Your task to perform on an android device: turn on showing notifications on the lock screen Image 0: 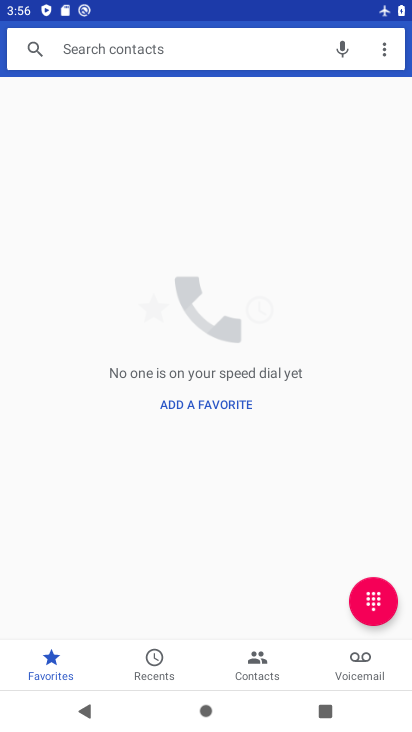
Step 0: press home button
Your task to perform on an android device: turn on showing notifications on the lock screen Image 1: 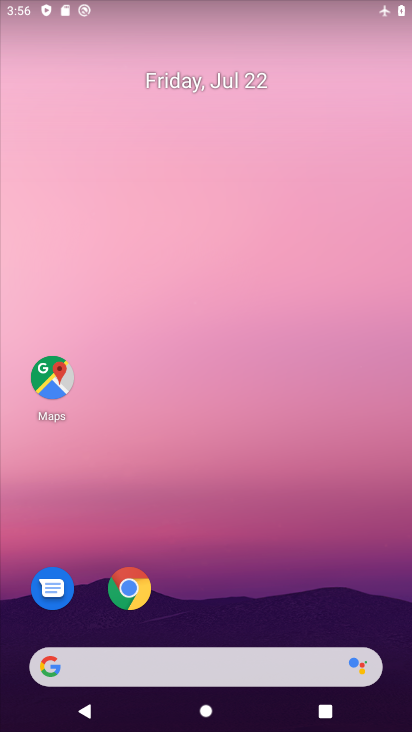
Step 1: drag from (333, 604) to (243, 160)
Your task to perform on an android device: turn on showing notifications on the lock screen Image 2: 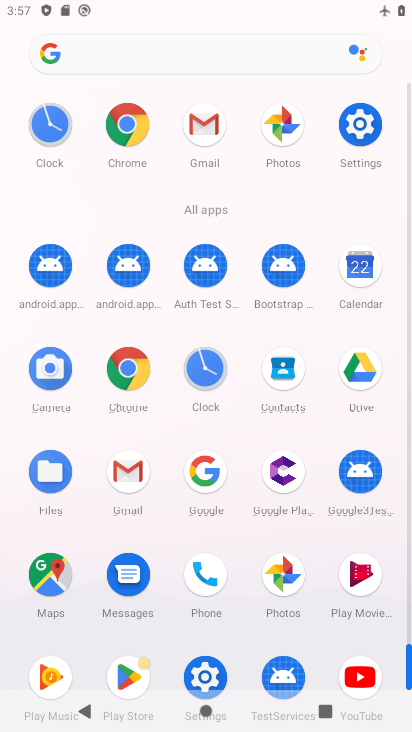
Step 2: click (353, 121)
Your task to perform on an android device: turn on showing notifications on the lock screen Image 3: 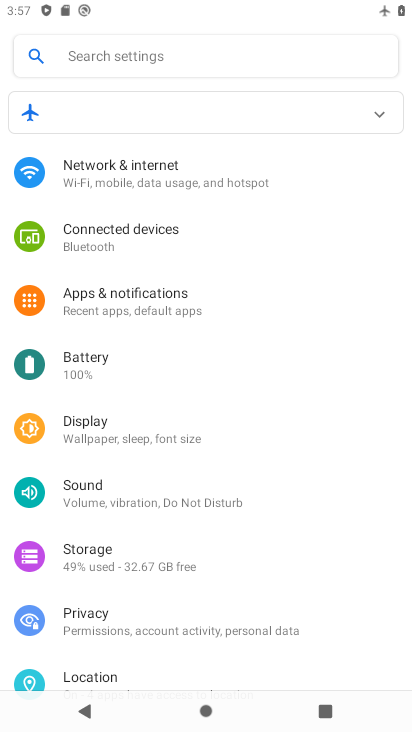
Step 3: click (220, 294)
Your task to perform on an android device: turn on showing notifications on the lock screen Image 4: 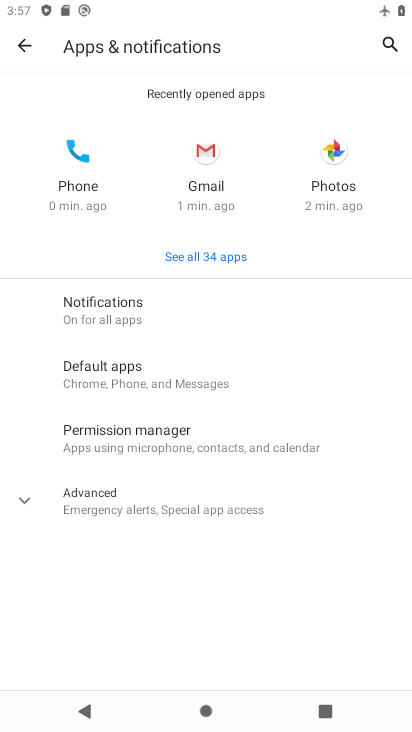
Step 4: click (199, 289)
Your task to perform on an android device: turn on showing notifications on the lock screen Image 5: 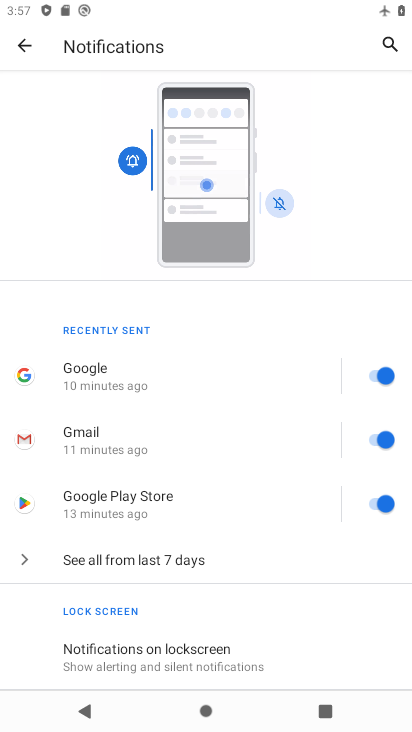
Step 5: click (209, 660)
Your task to perform on an android device: turn on showing notifications on the lock screen Image 6: 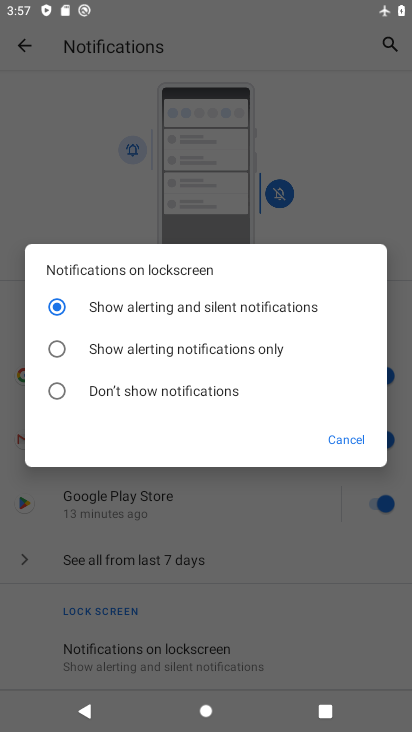
Step 6: task complete